Your task to perform on an android device: View the shopping cart on costco. Add bose soundlink to the cart on costco Image 0: 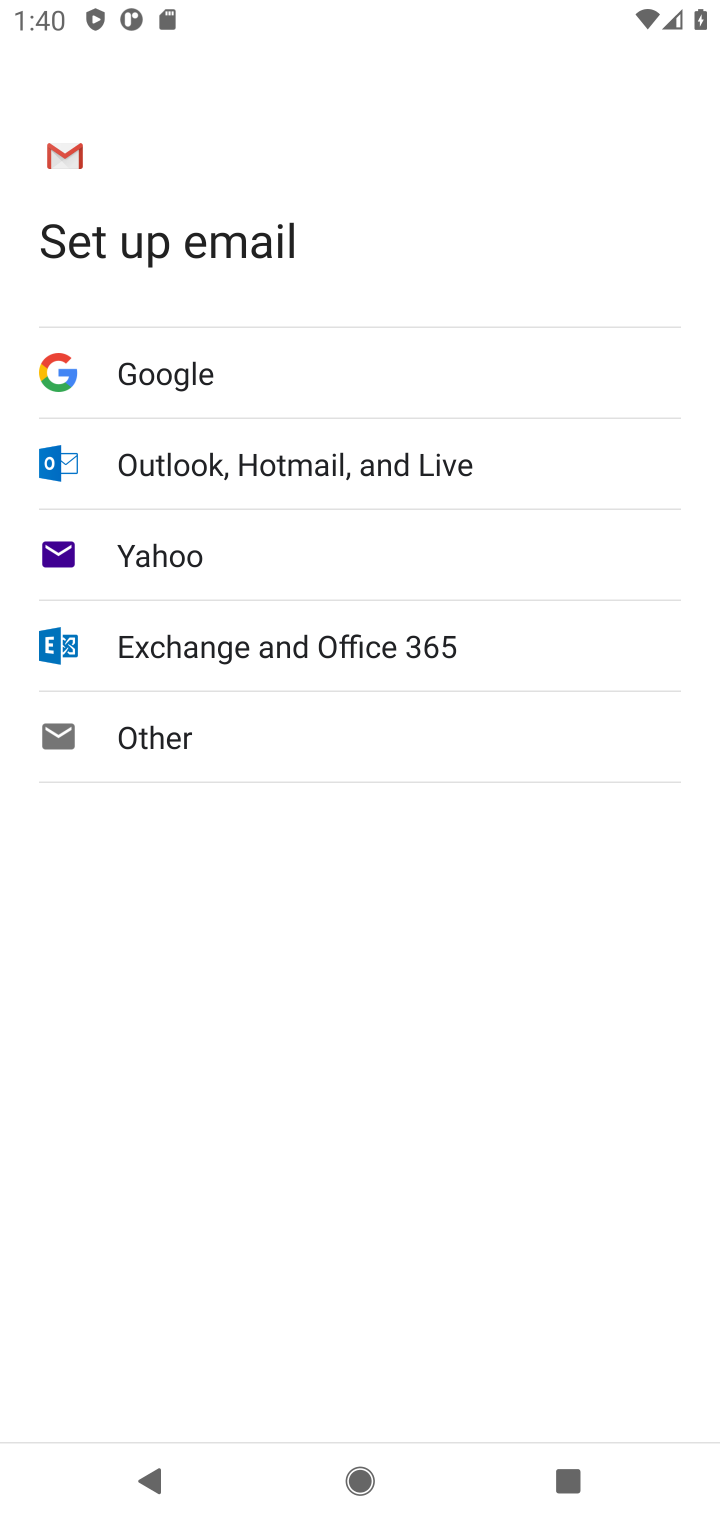
Step 0: press home button
Your task to perform on an android device: View the shopping cart on costco. Add bose soundlink to the cart on costco Image 1: 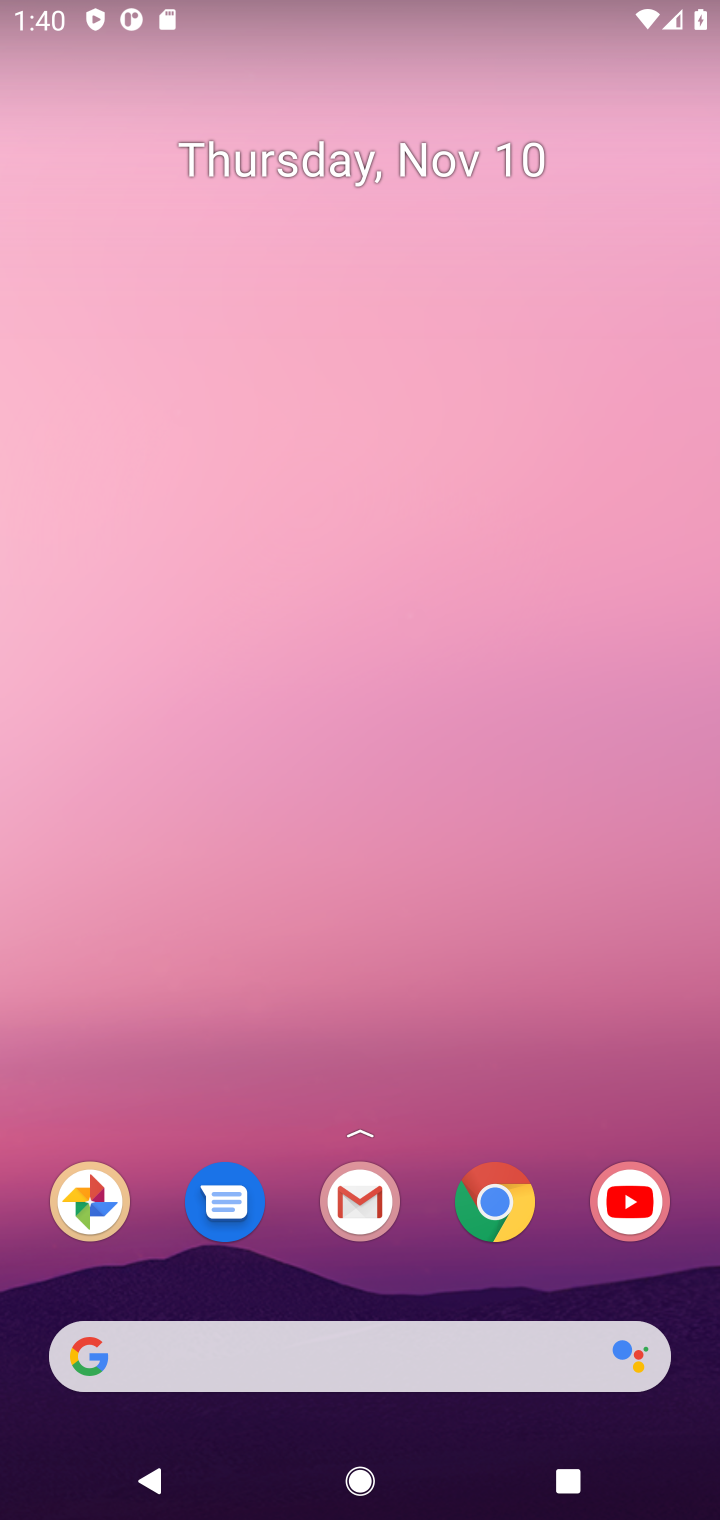
Step 1: click (517, 1199)
Your task to perform on an android device: View the shopping cart on costco. Add bose soundlink to the cart on costco Image 2: 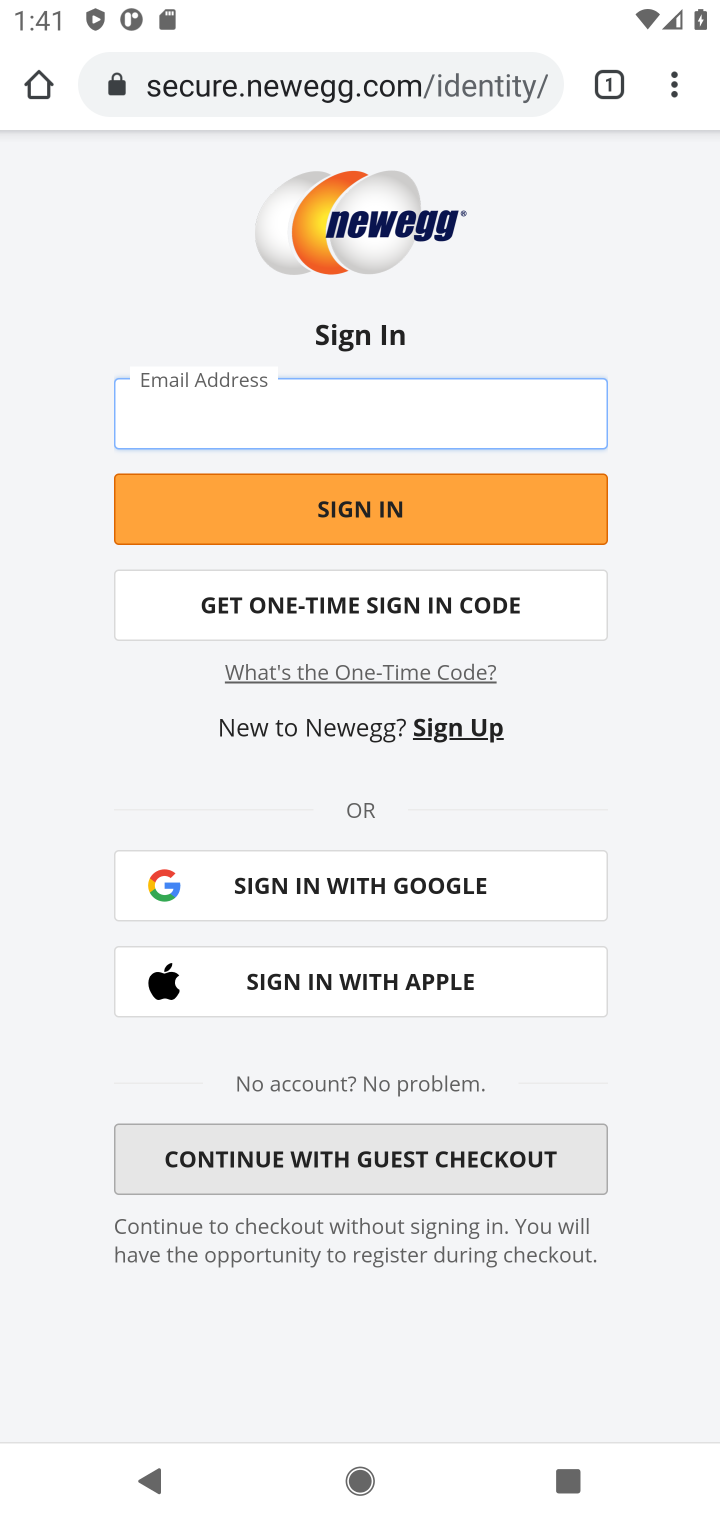
Step 2: click (464, 75)
Your task to perform on an android device: View the shopping cart on costco. Add bose soundlink to the cart on costco Image 3: 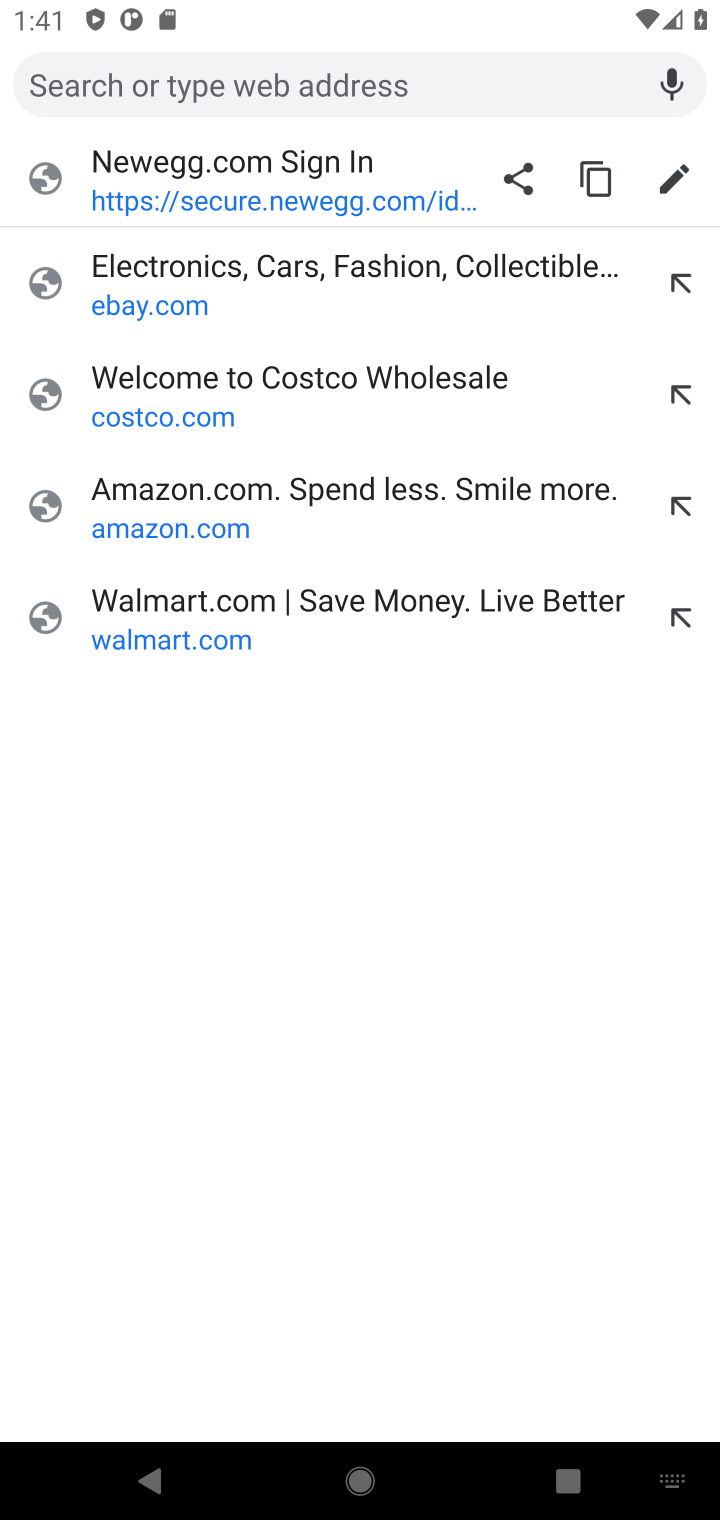
Step 3: press enter
Your task to perform on an android device: View the shopping cart on costco. Add bose soundlink to the cart on costco Image 4: 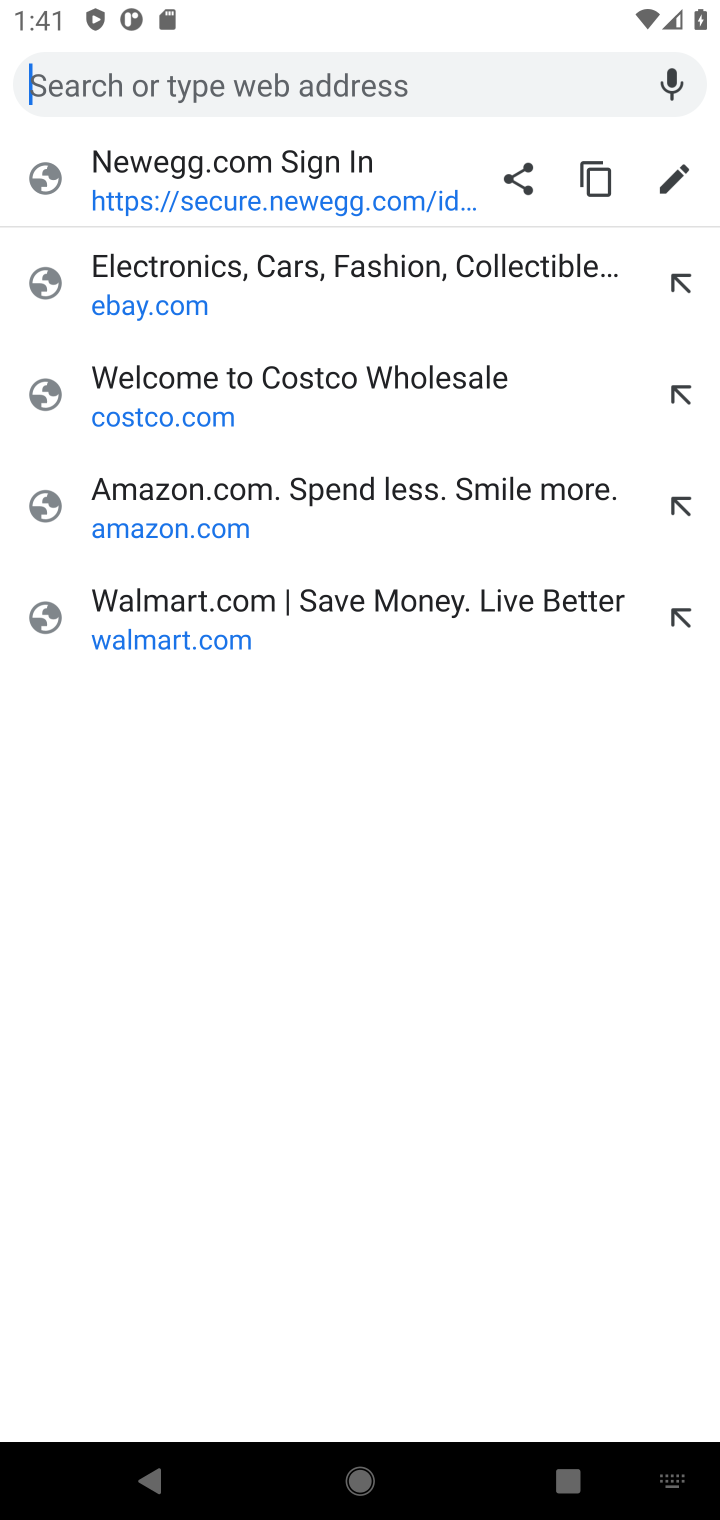
Step 4: type "costco"
Your task to perform on an android device: View the shopping cart on costco. Add bose soundlink to the cart on costco Image 5: 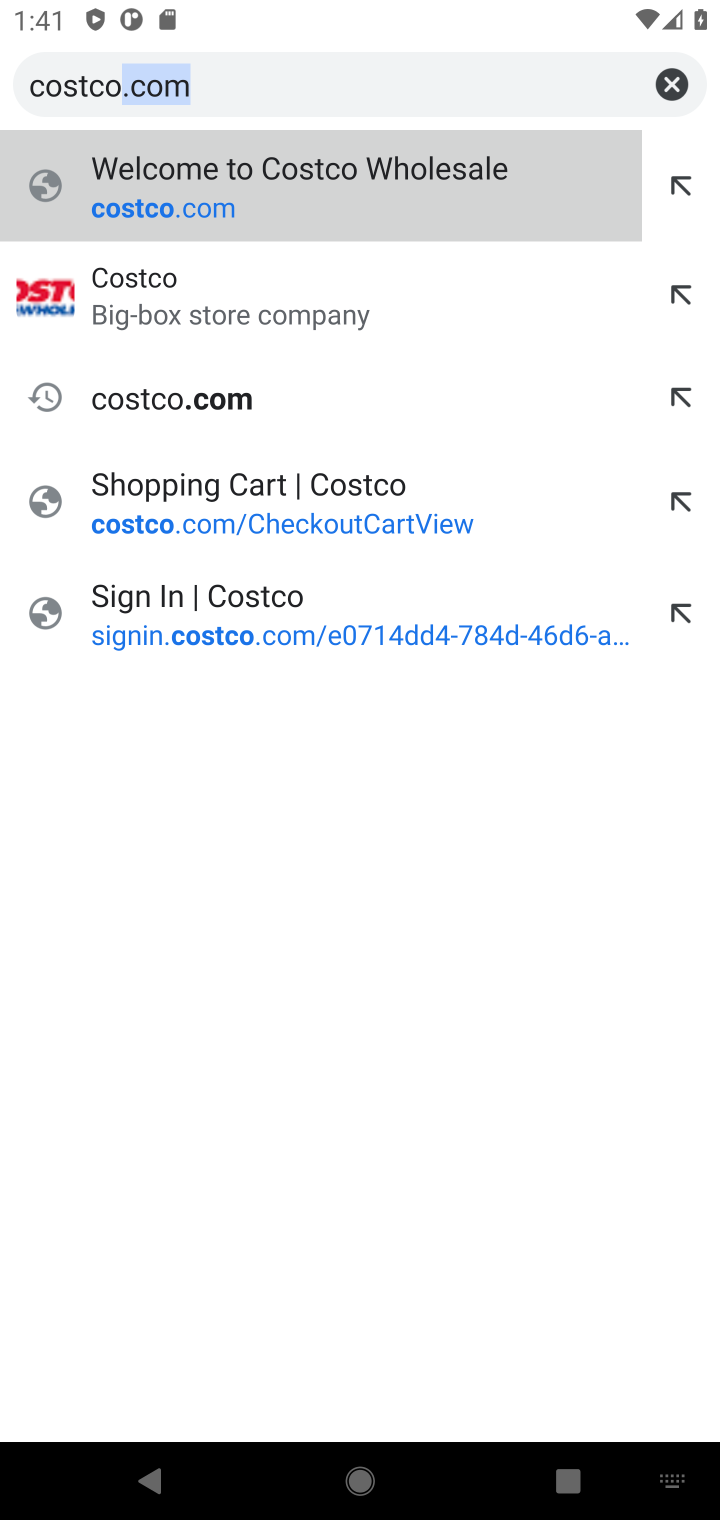
Step 5: click (454, 87)
Your task to perform on an android device: View the shopping cart on costco. Add bose soundlink to the cart on costco Image 6: 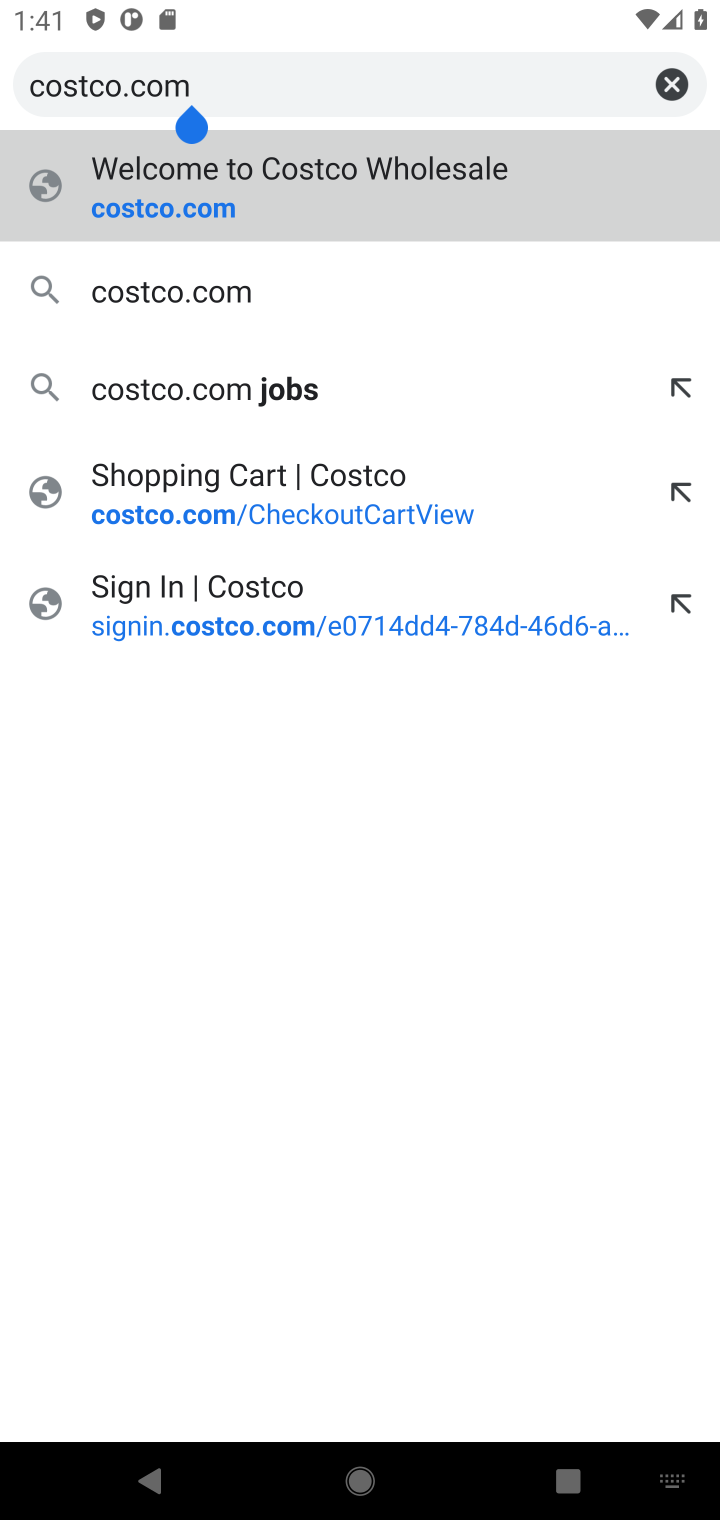
Step 6: click (218, 286)
Your task to perform on an android device: View the shopping cart on costco. Add bose soundlink to the cart on costco Image 7: 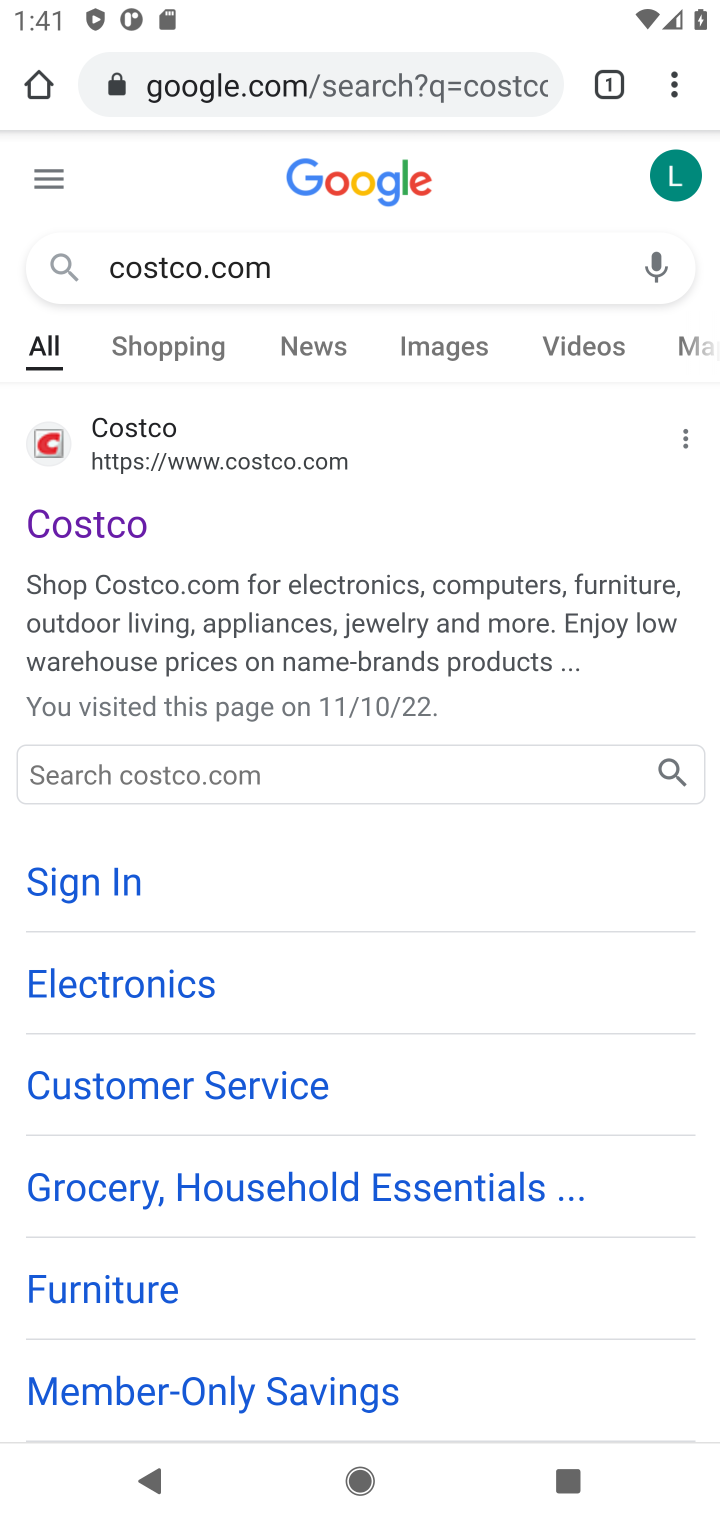
Step 7: click (198, 460)
Your task to perform on an android device: View the shopping cart on costco. Add bose soundlink to the cart on costco Image 8: 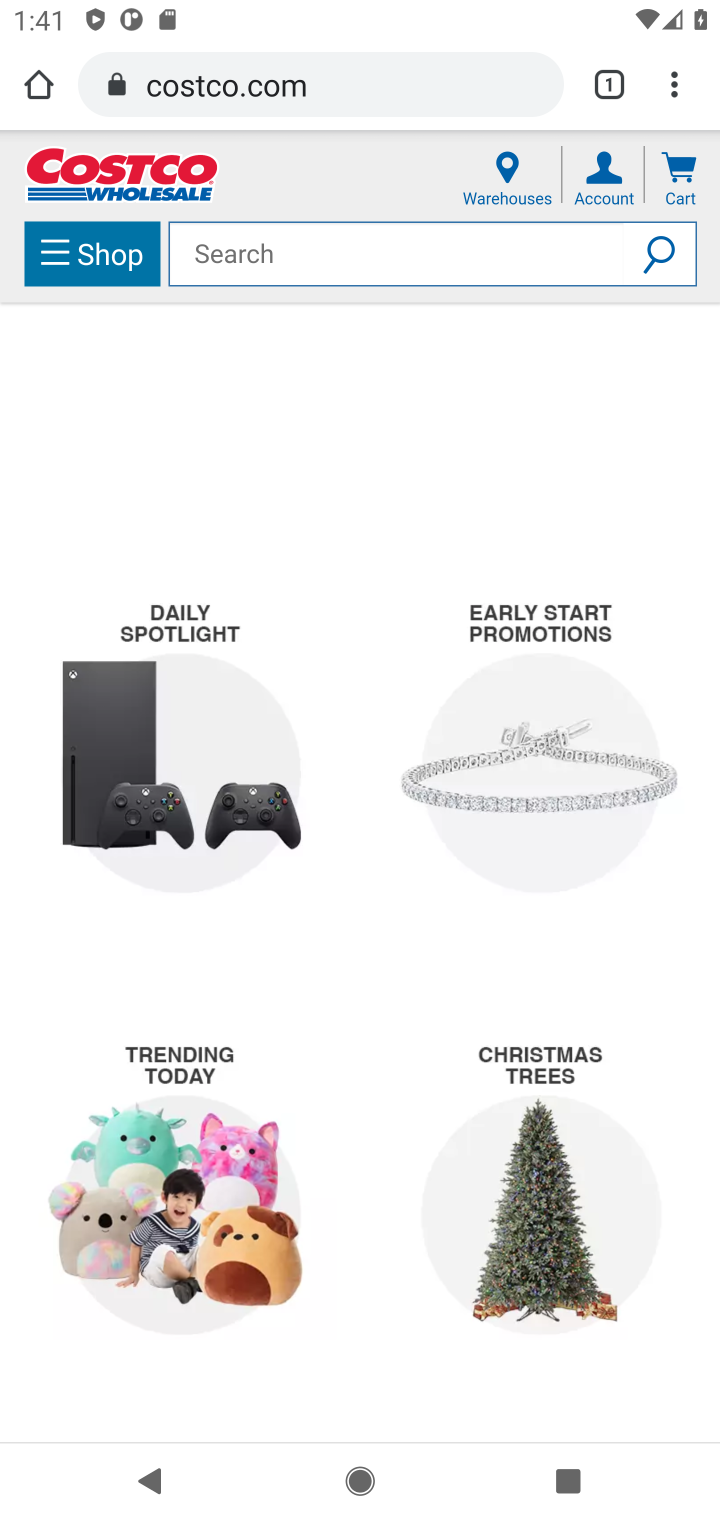
Step 8: click (675, 179)
Your task to perform on an android device: View the shopping cart on costco. Add bose soundlink to the cart on costco Image 9: 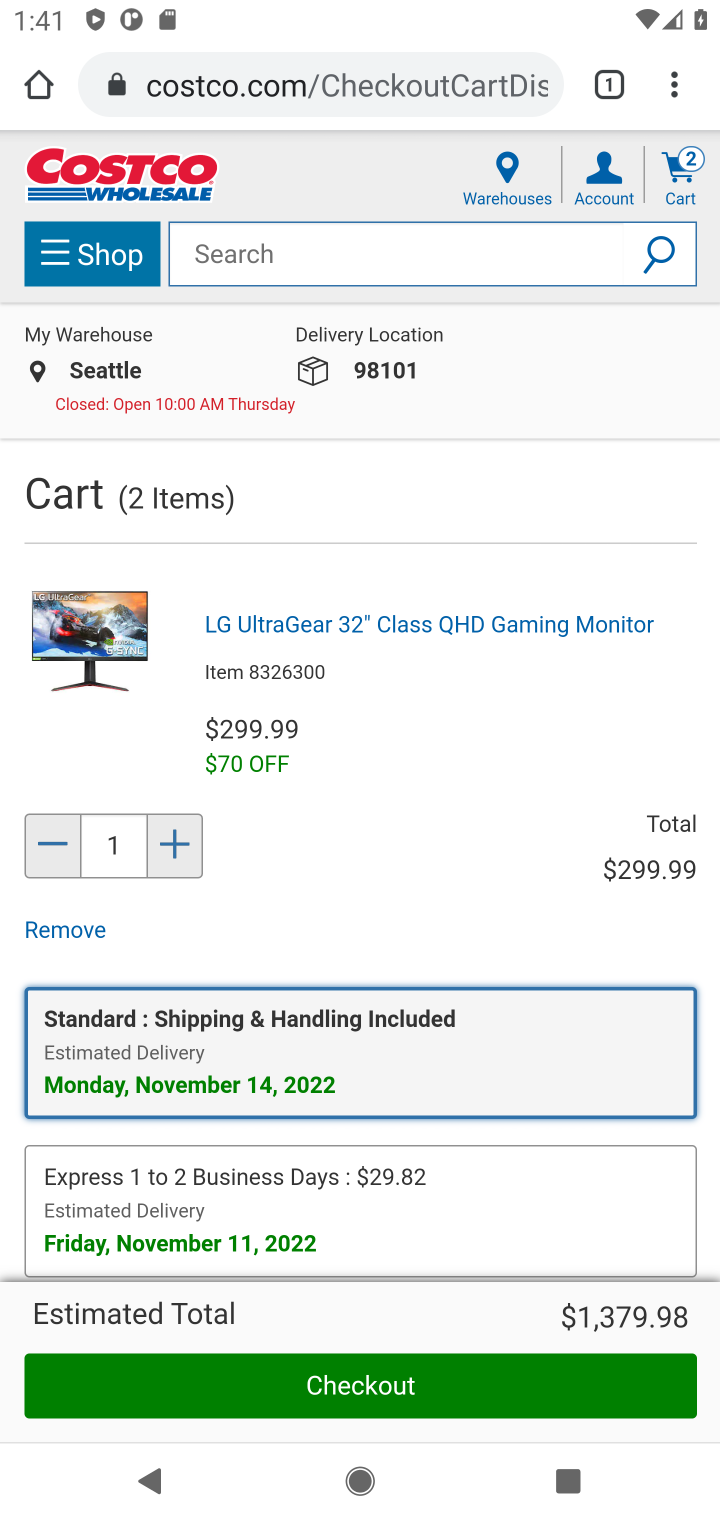
Step 9: click (82, 923)
Your task to perform on an android device: View the shopping cart on costco. Add bose soundlink to the cart on costco Image 10: 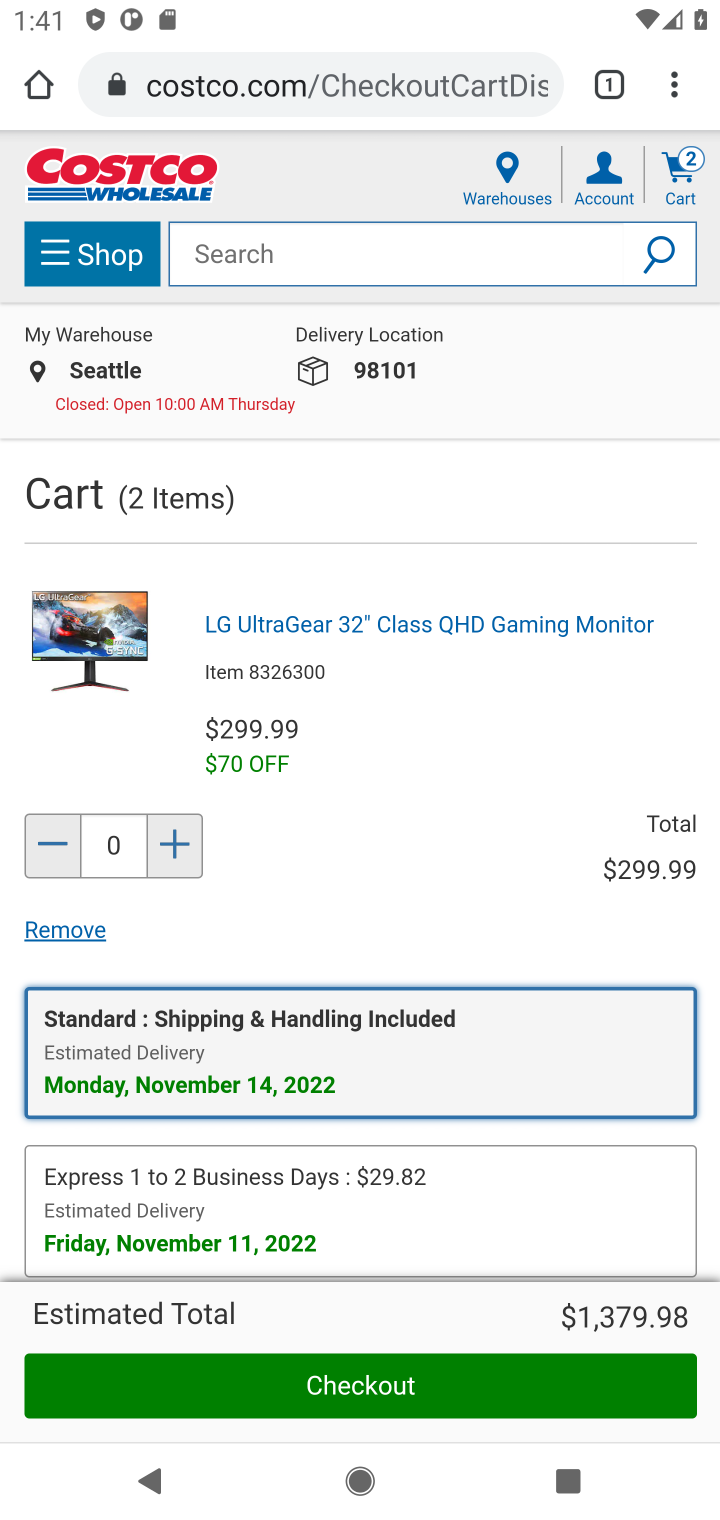
Step 10: drag from (446, 1265) to (540, 506)
Your task to perform on an android device: View the shopping cart on costco. Add bose soundlink to the cart on costco Image 11: 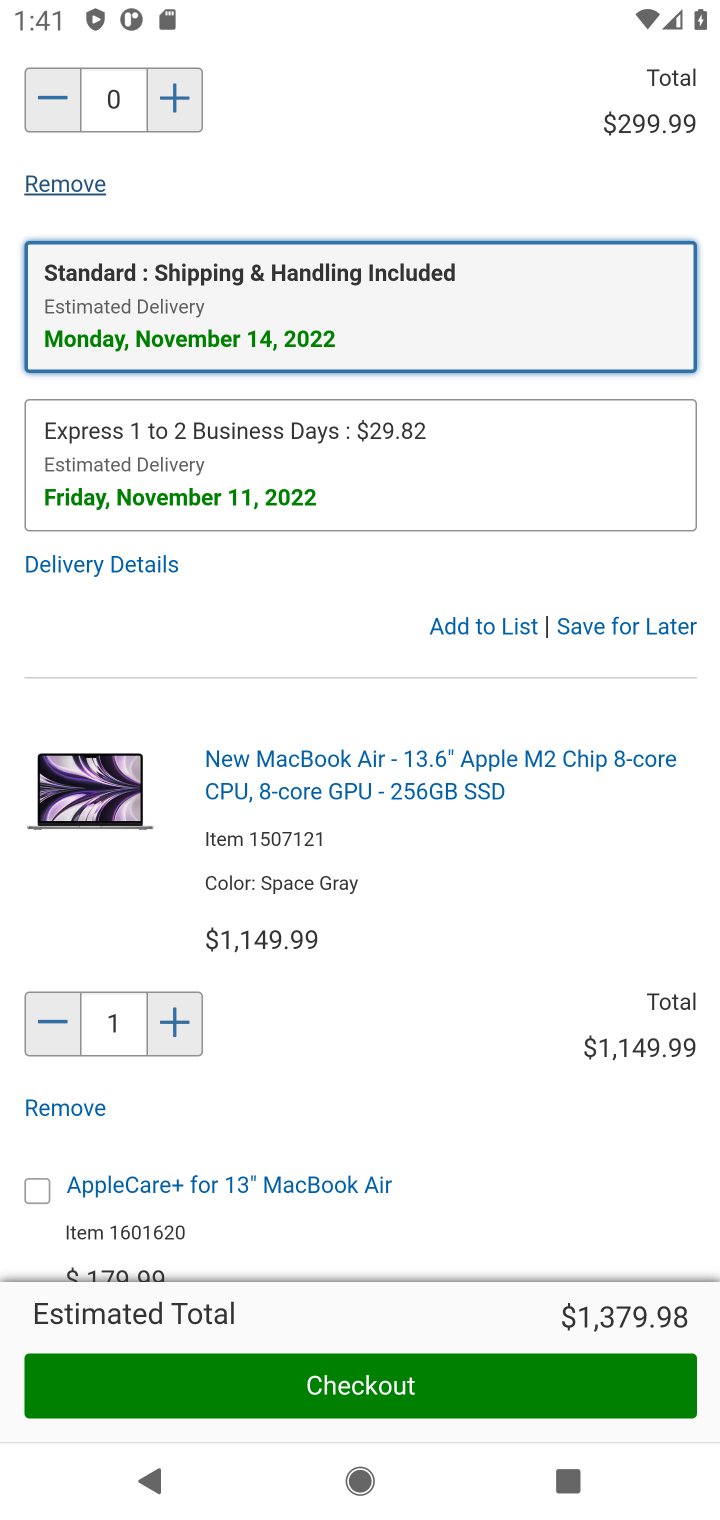
Step 11: click (81, 1112)
Your task to perform on an android device: View the shopping cart on costco. Add bose soundlink to the cart on costco Image 12: 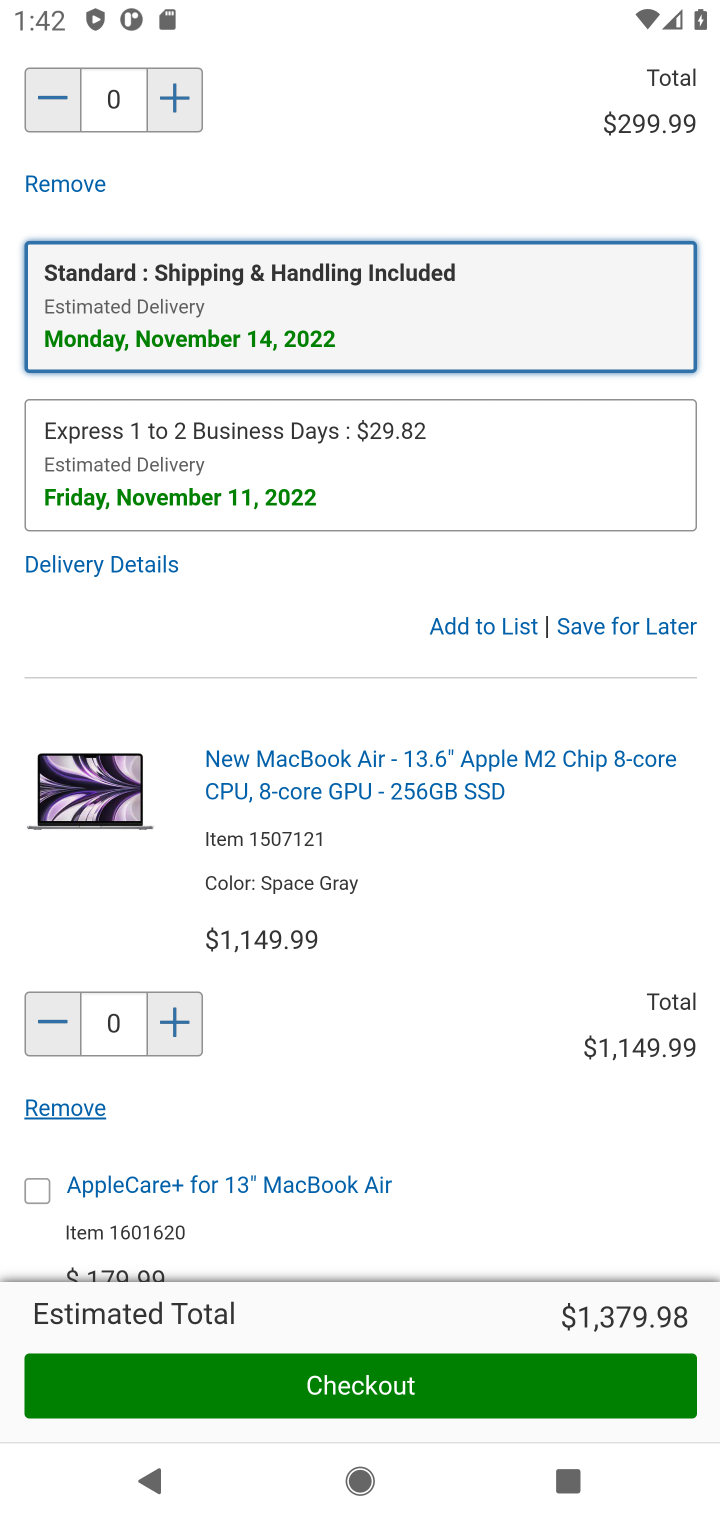
Step 12: drag from (561, 397) to (613, 1069)
Your task to perform on an android device: View the shopping cart on costco. Add bose soundlink to the cart on costco Image 13: 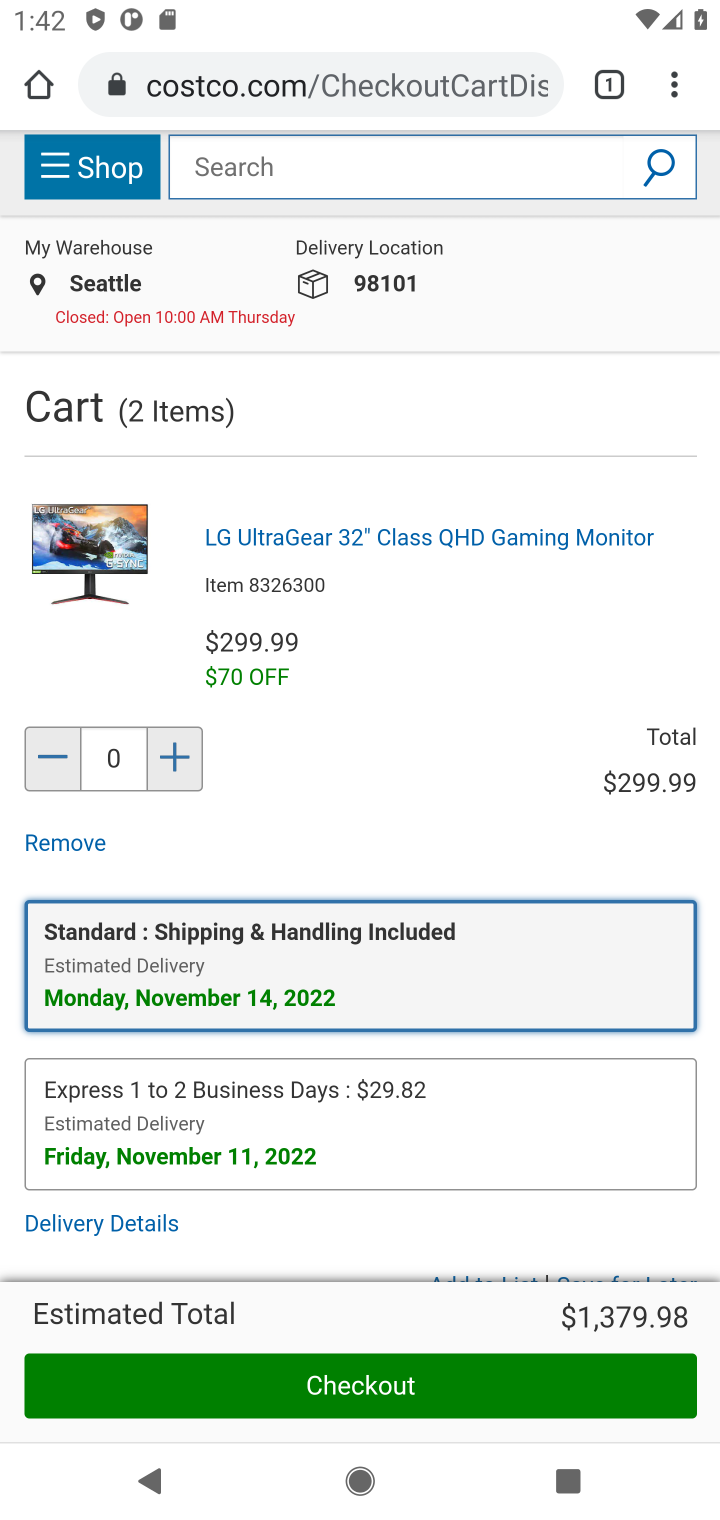
Step 13: click (654, 163)
Your task to perform on an android device: View the shopping cart on costco. Add bose soundlink to the cart on costco Image 14: 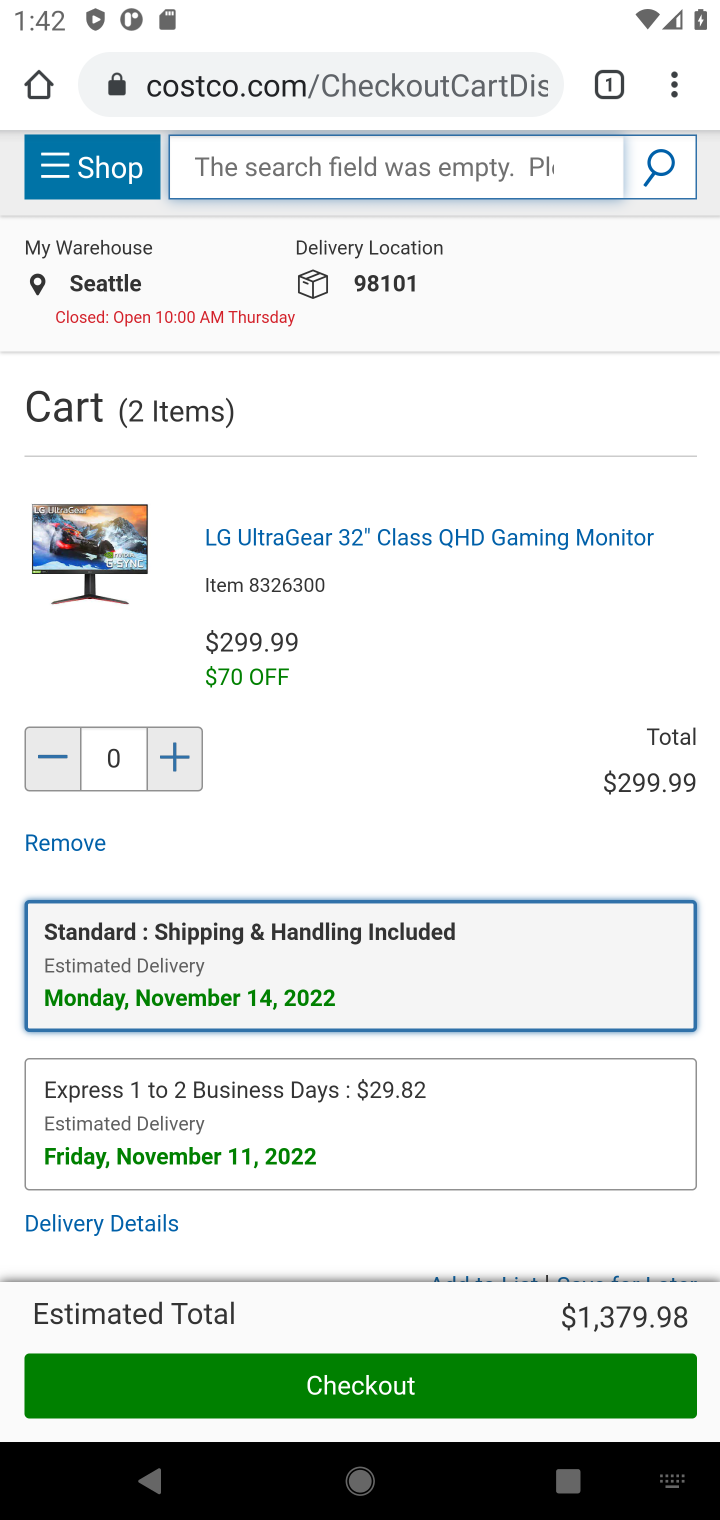
Step 14: press enter
Your task to perform on an android device: View the shopping cart on costco. Add bose soundlink to the cart on costco Image 15: 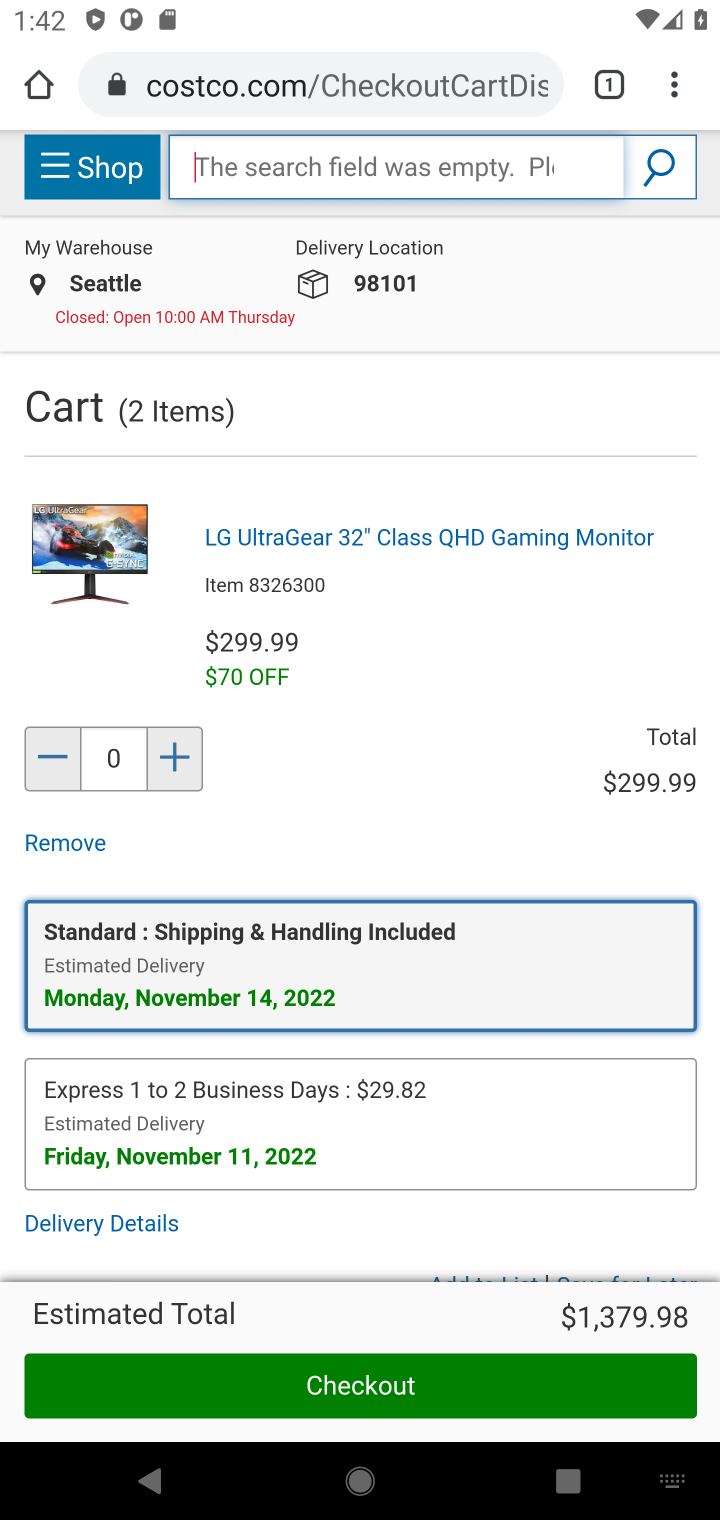
Step 15: type "bose soundlink"
Your task to perform on an android device: View the shopping cart on costco. Add bose soundlink to the cart on costco Image 16: 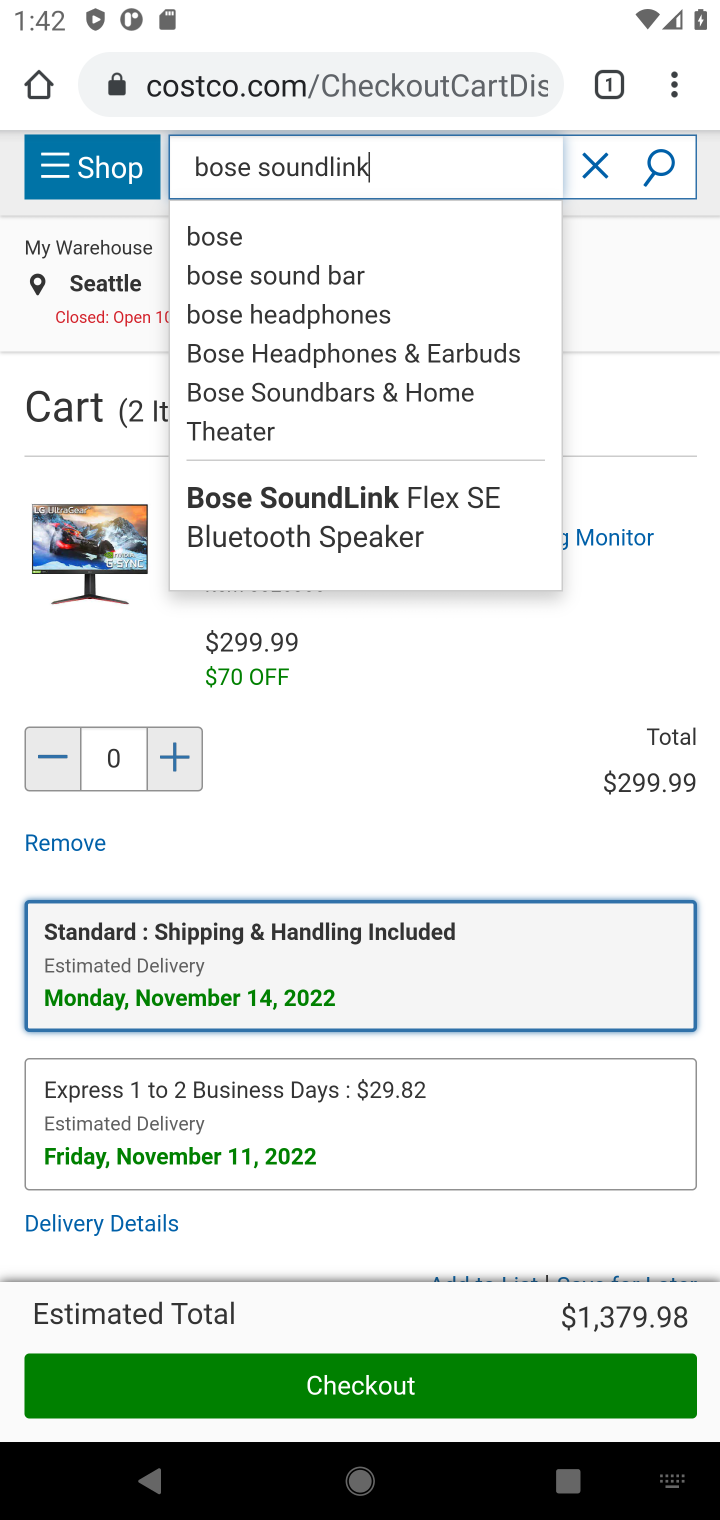
Step 16: click (643, 334)
Your task to perform on an android device: View the shopping cart on costco. Add bose soundlink to the cart on costco Image 17: 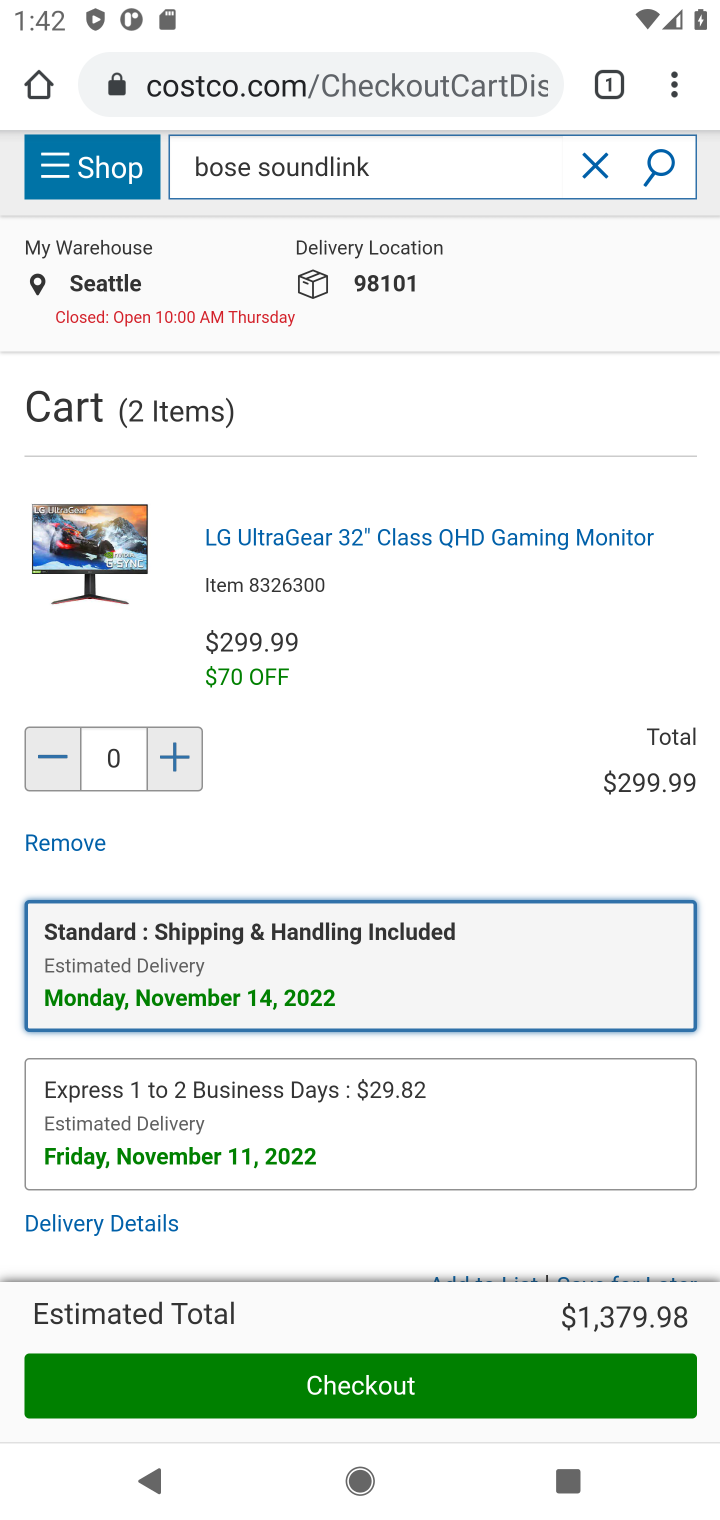
Step 17: drag from (528, 292) to (573, 841)
Your task to perform on an android device: View the shopping cart on costco. Add bose soundlink to the cart on costco Image 18: 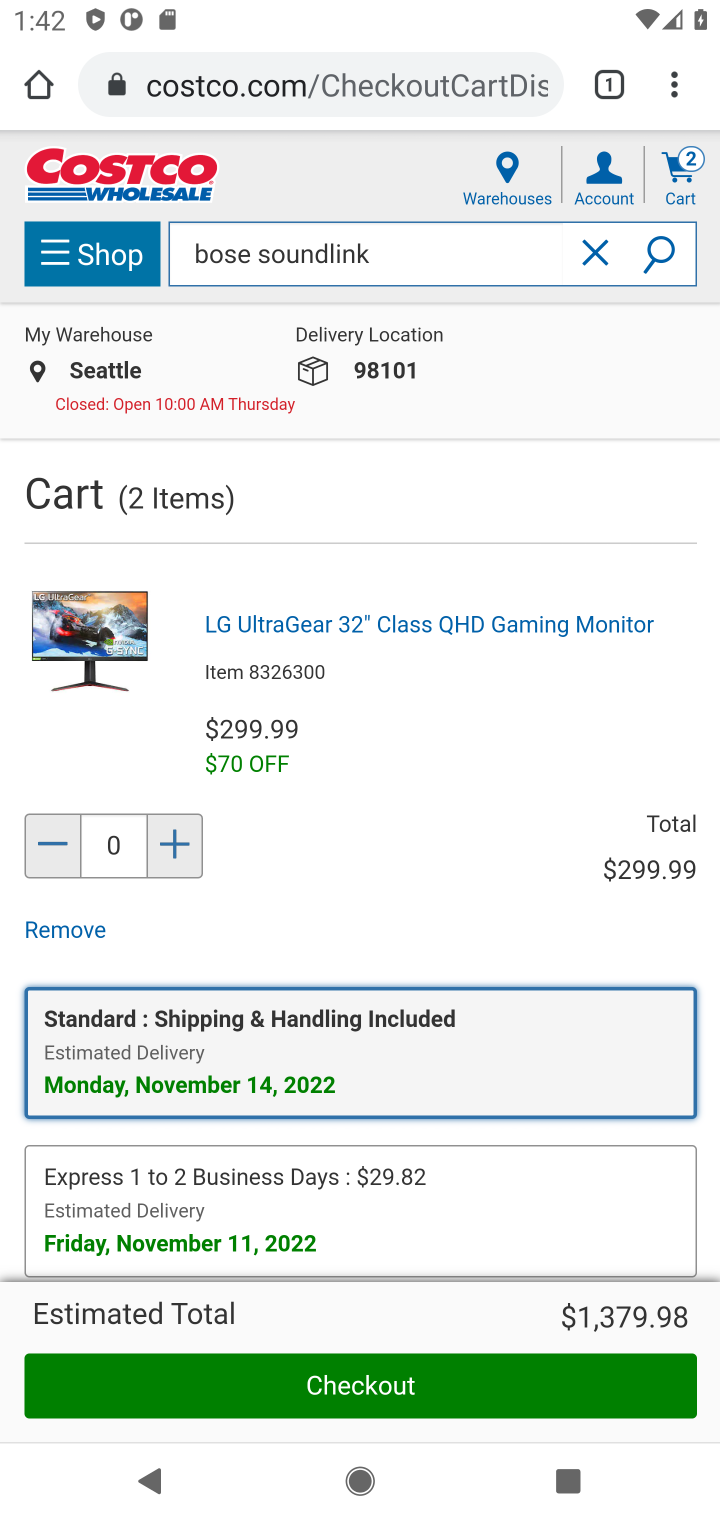
Step 18: click (439, 245)
Your task to perform on an android device: View the shopping cart on costco. Add bose soundlink to the cart on costco Image 19: 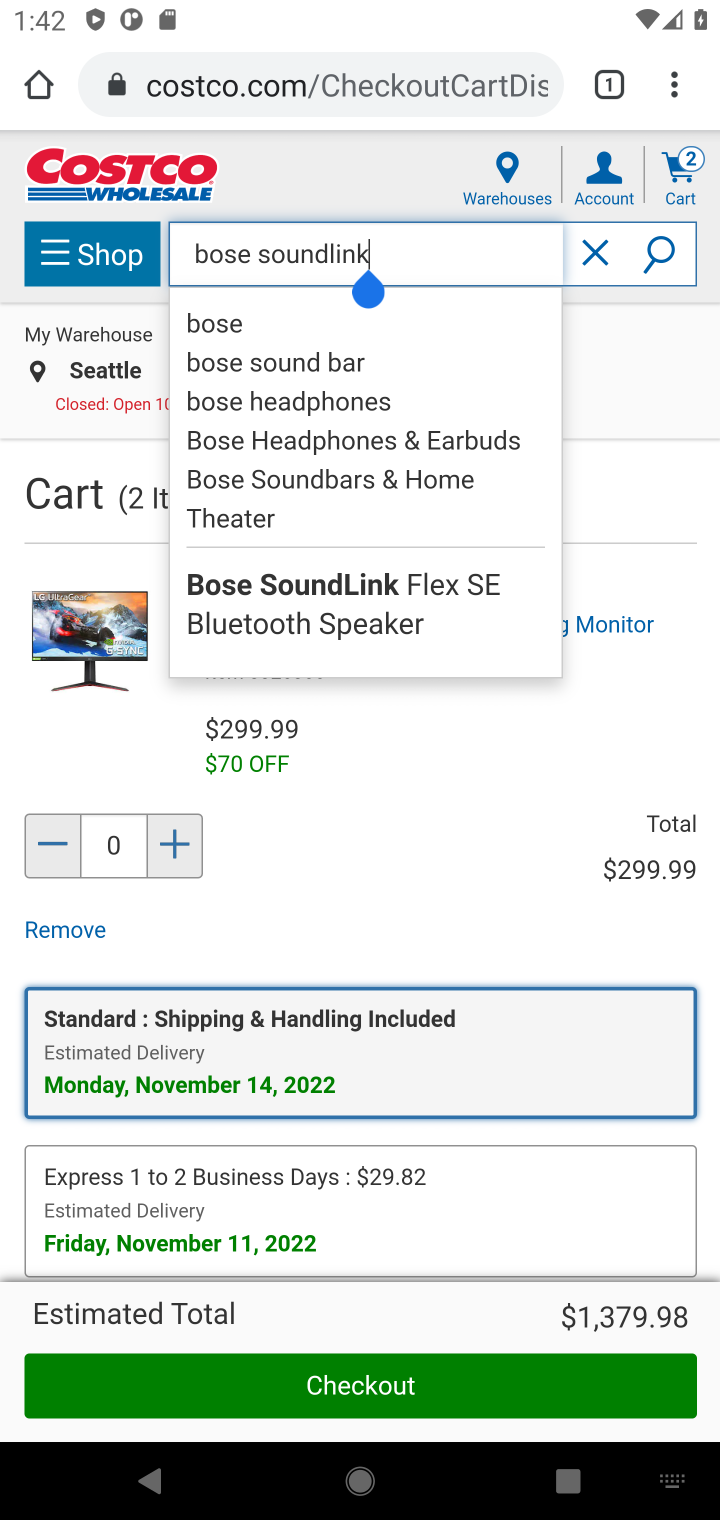
Step 19: task complete